Your task to perform on an android device: turn off wifi Image 0: 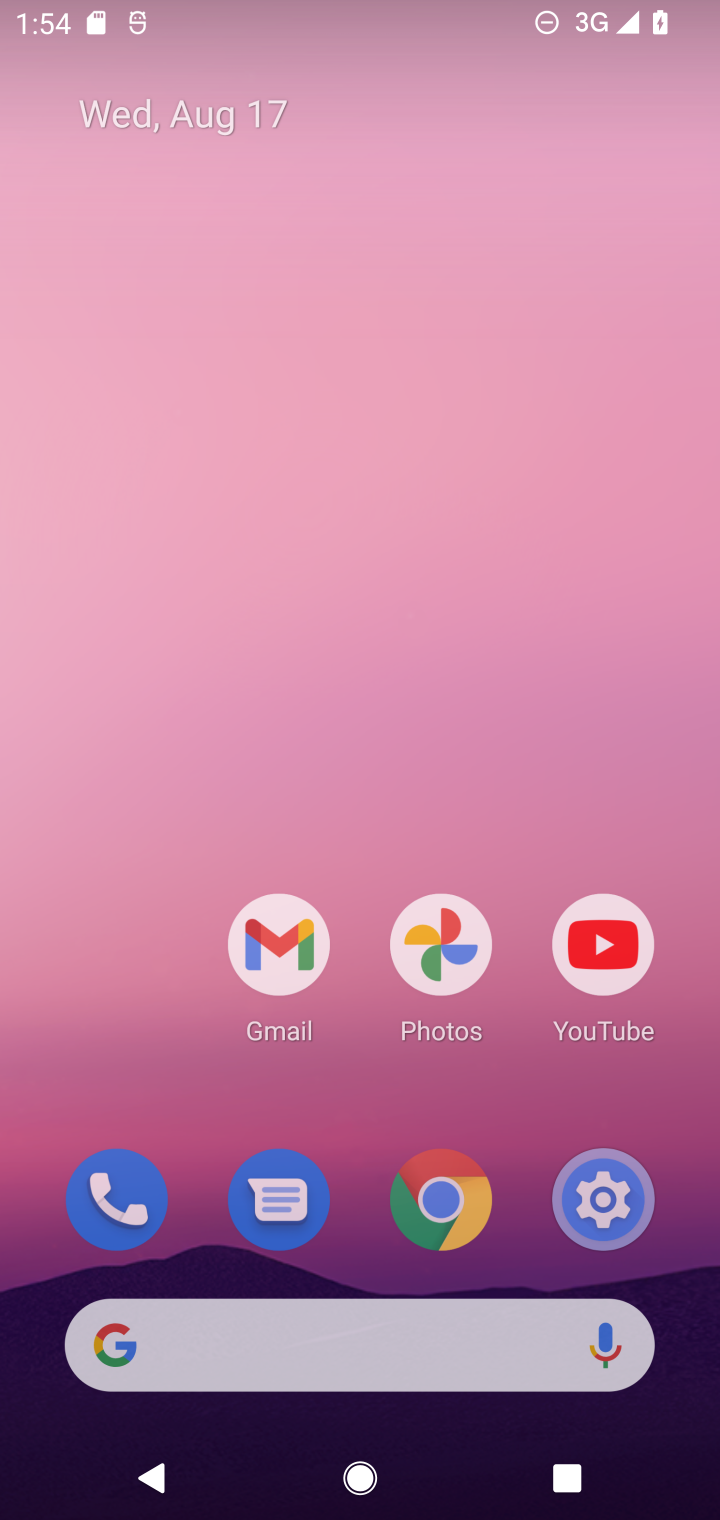
Step 0: press home button
Your task to perform on an android device: turn off wifi Image 1: 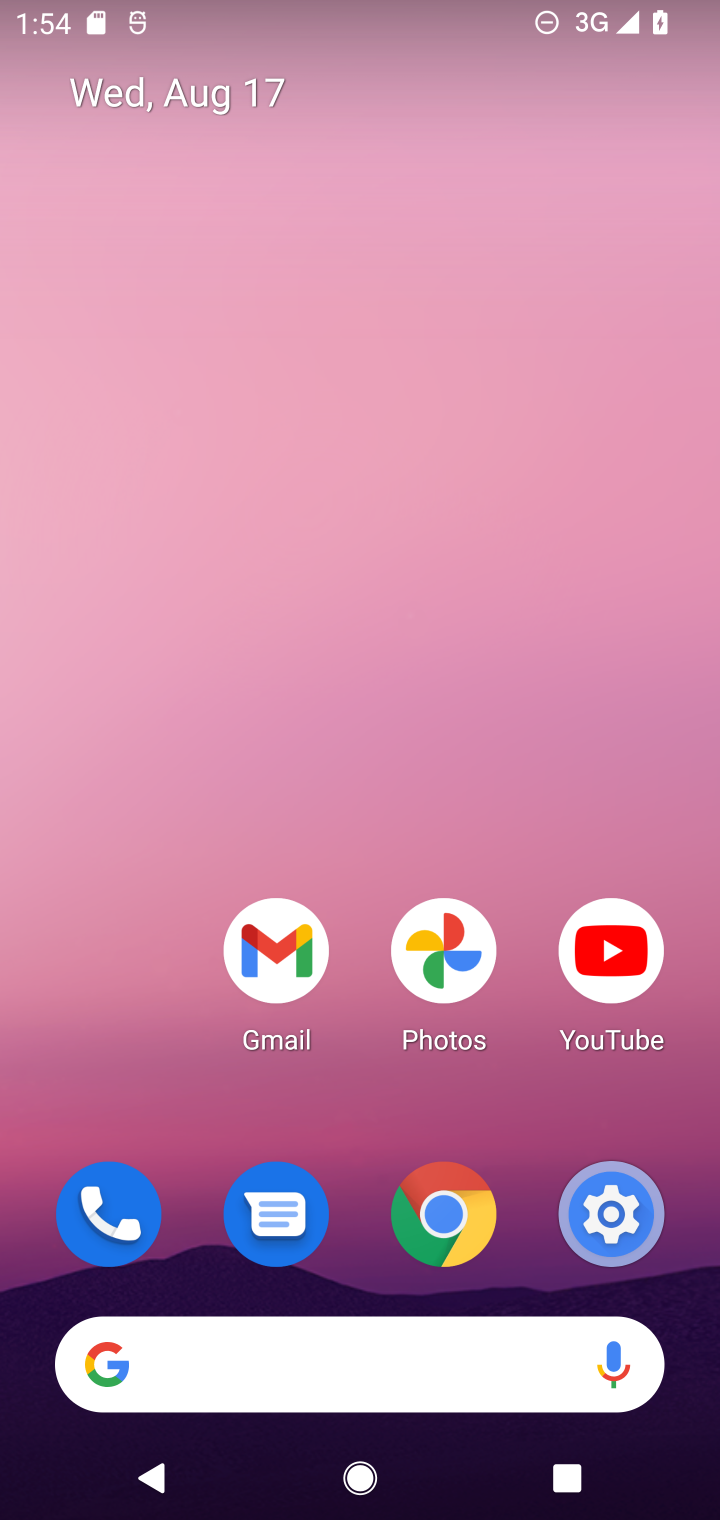
Step 1: click (615, 1213)
Your task to perform on an android device: turn off wifi Image 2: 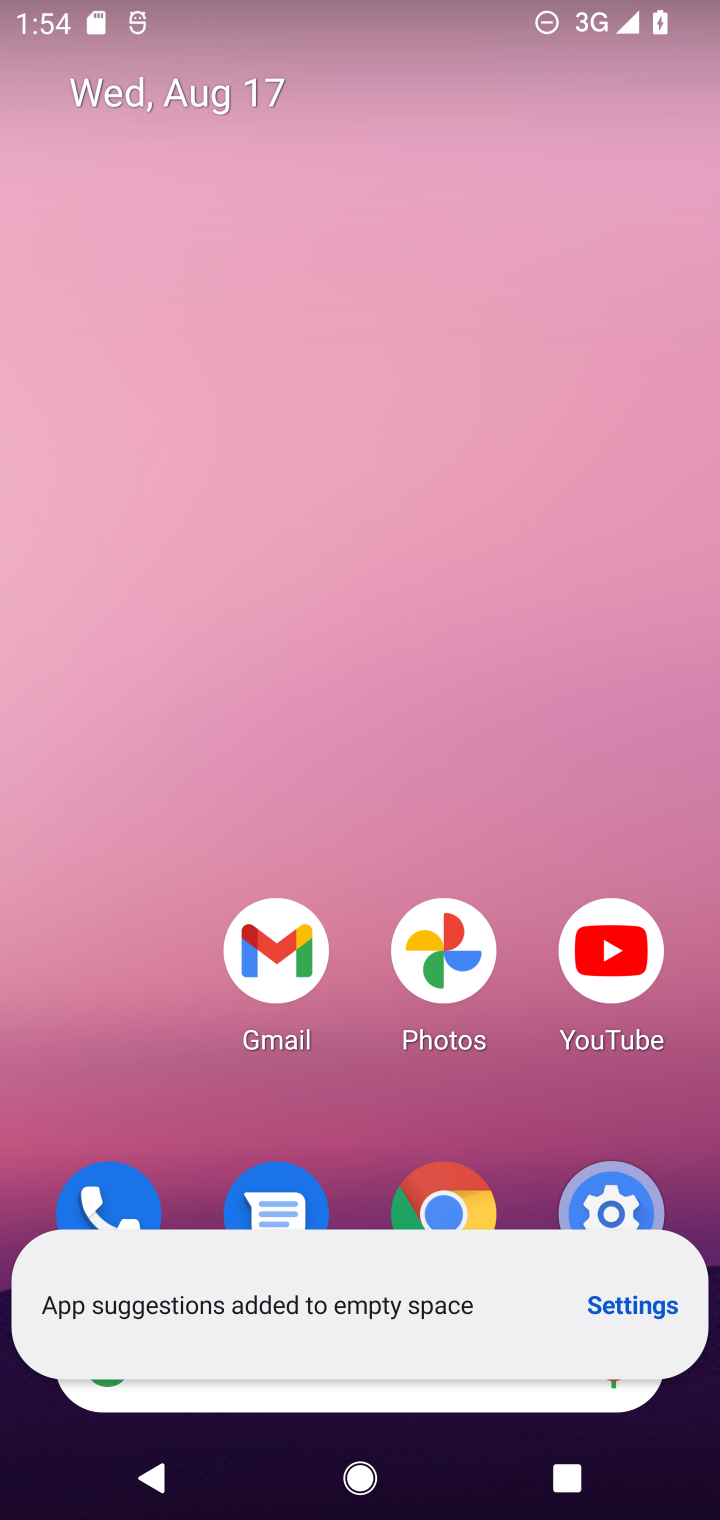
Step 2: click (615, 1213)
Your task to perform on an android device: turn off wifi Image 3: 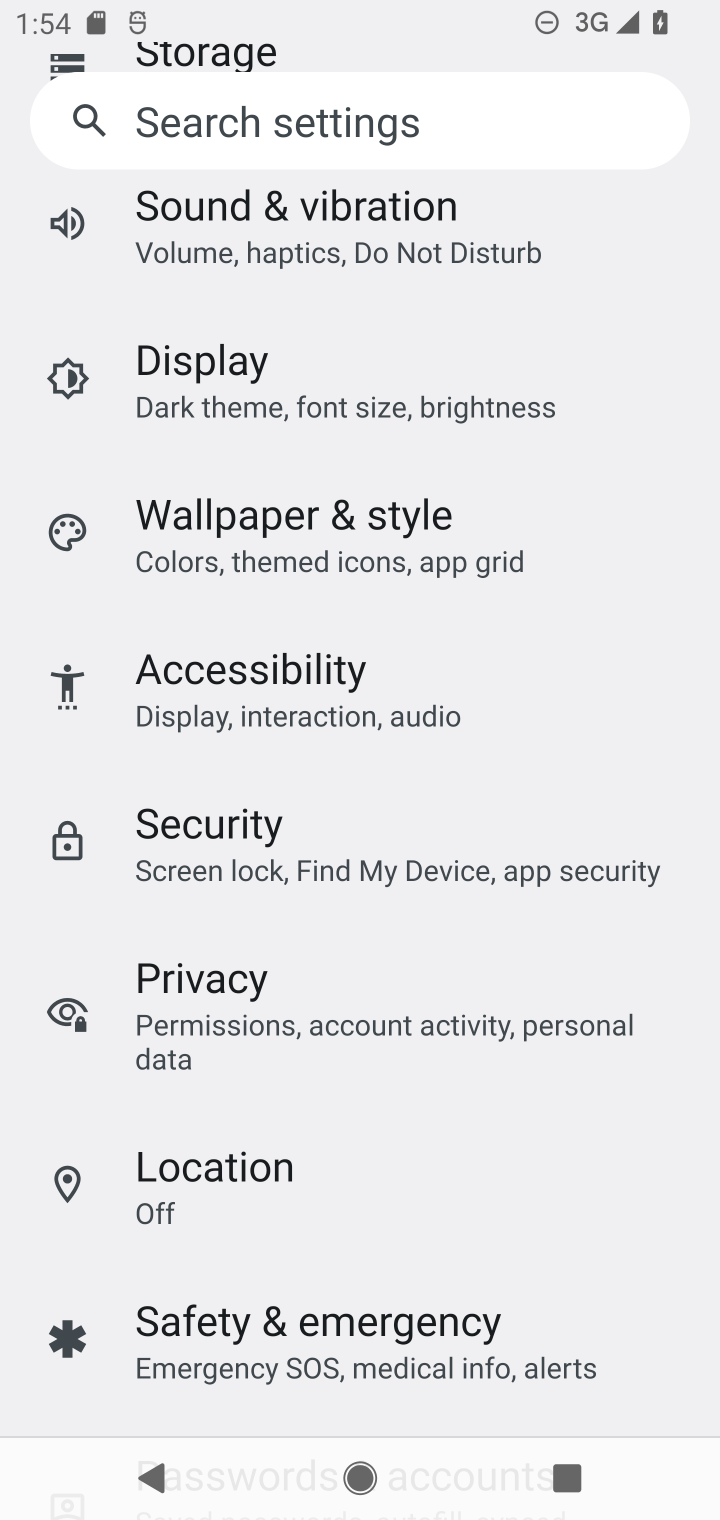
Step 3: drag from (371, 319) to (371, 916)
Your task to perform on an android device: turn off wifi Image 4: 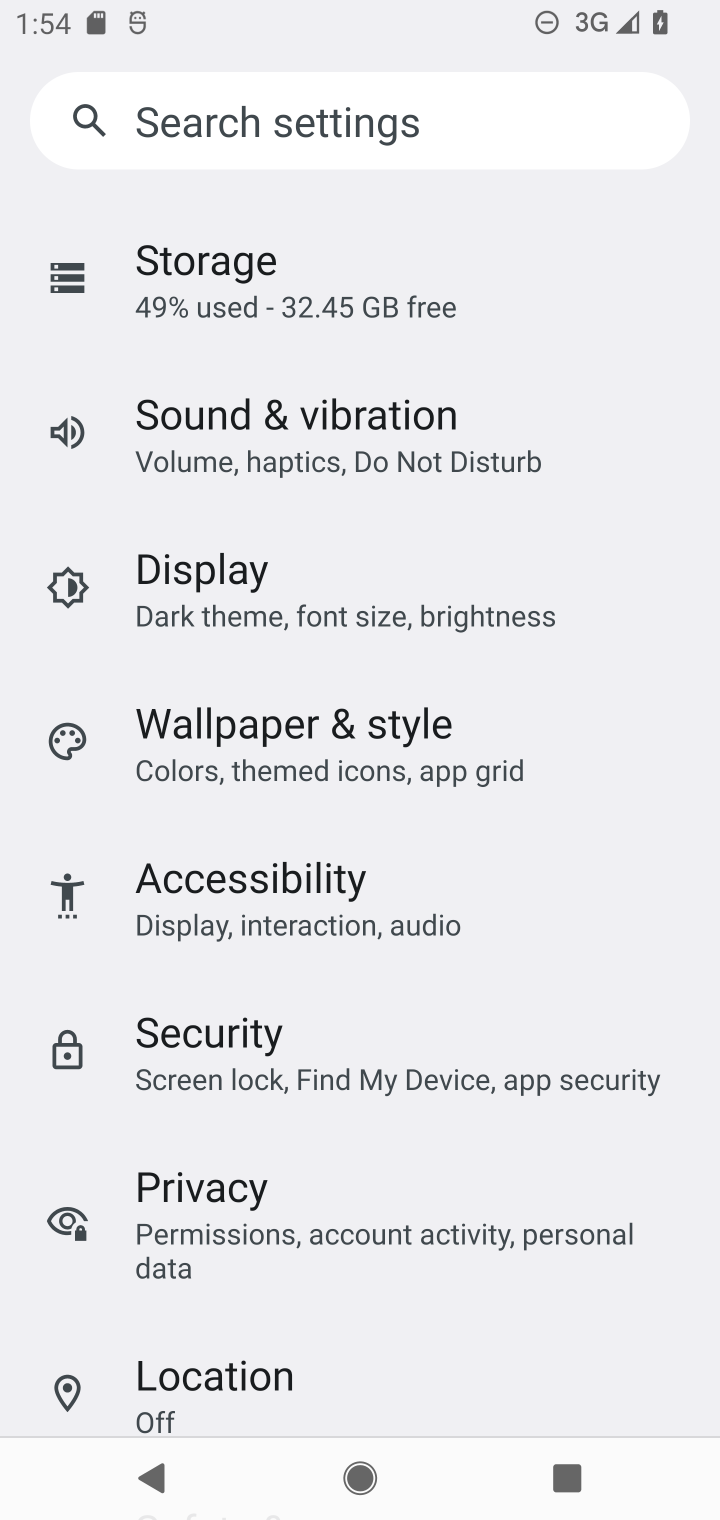
Step 4: drag from (381, 524) to (323, 1130)
Your task to perform on an android device: turn off wifi Image 5: 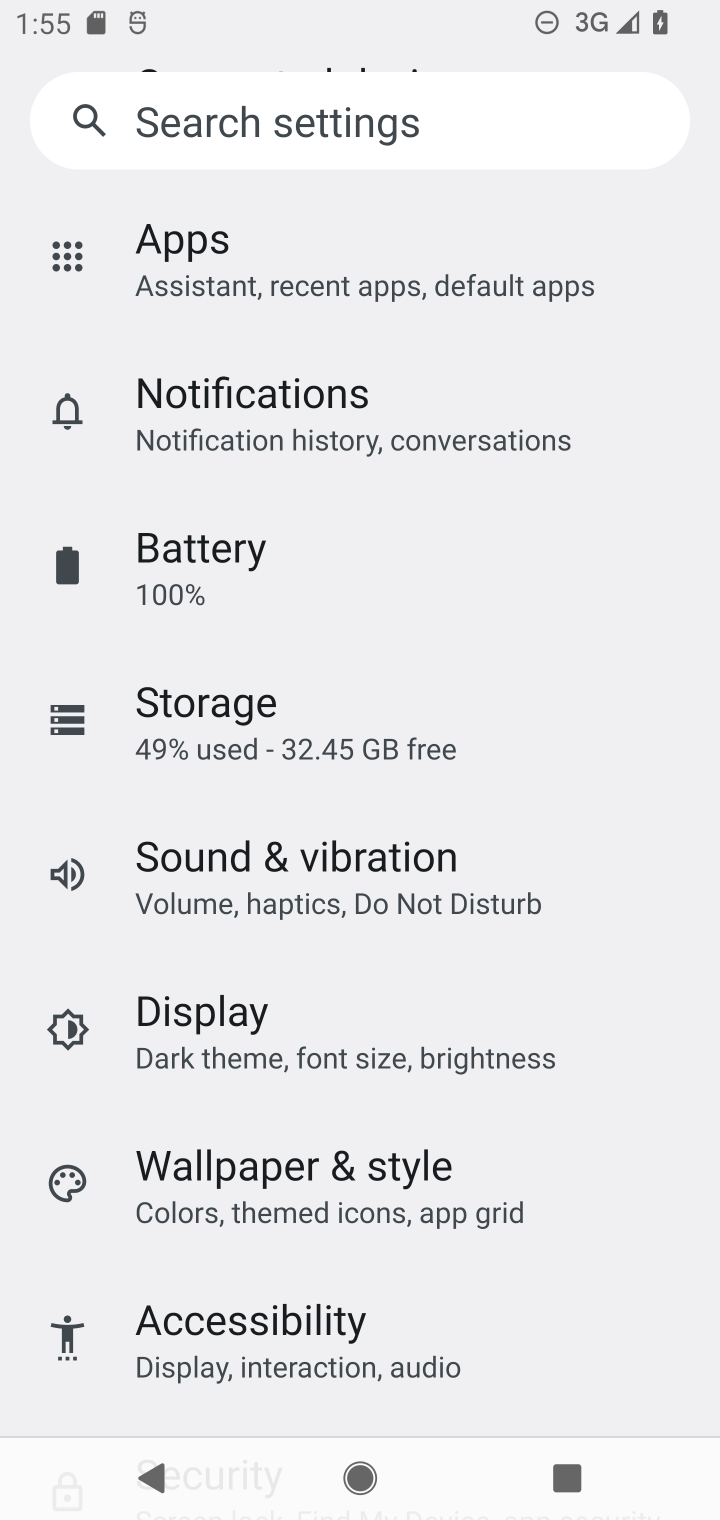
Step 5: drag from (400, 483) to (318, 944)
Your task to perform on an android device: turn off wifi Image 6: 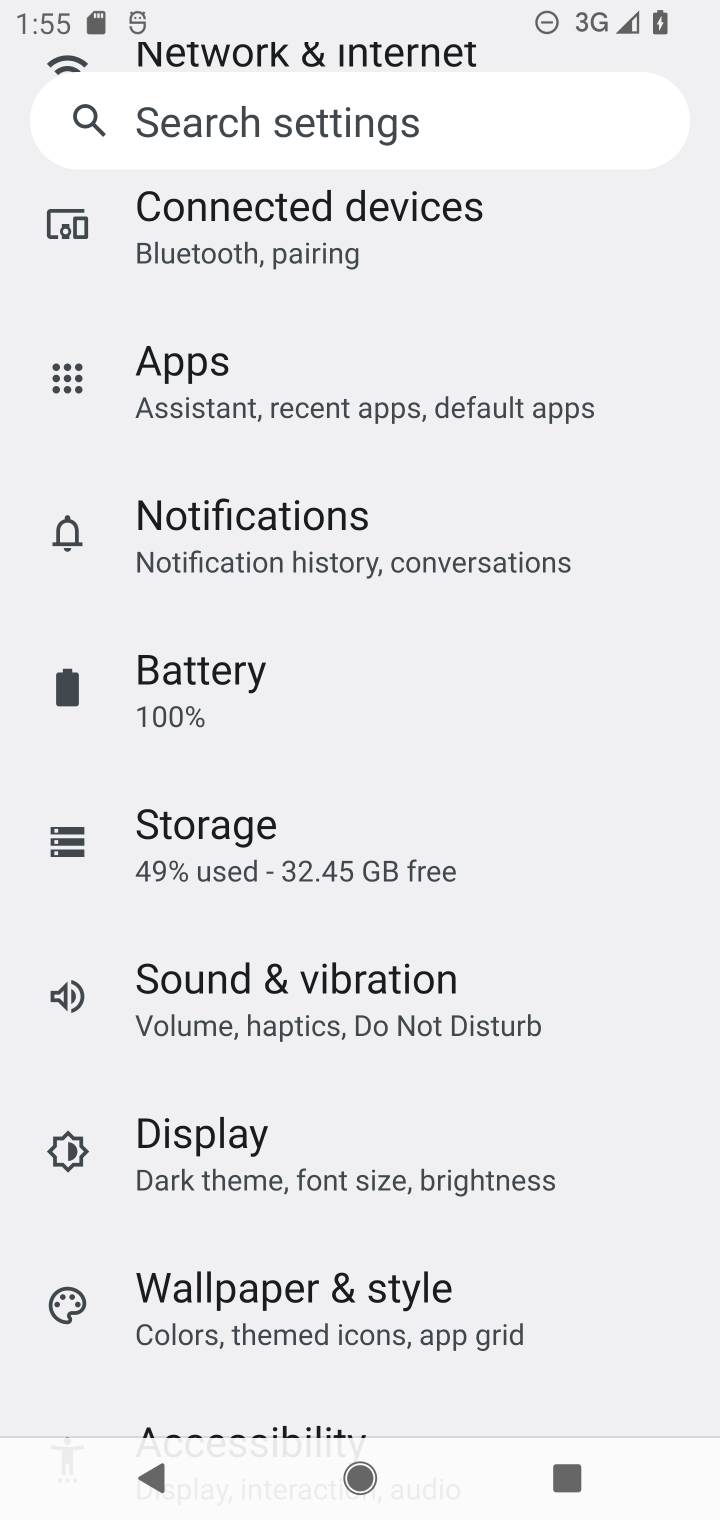
Step 6: drag from (394, 332) to (336, 1175)
Your task to perform on an android device: turn off wifi Image 7: 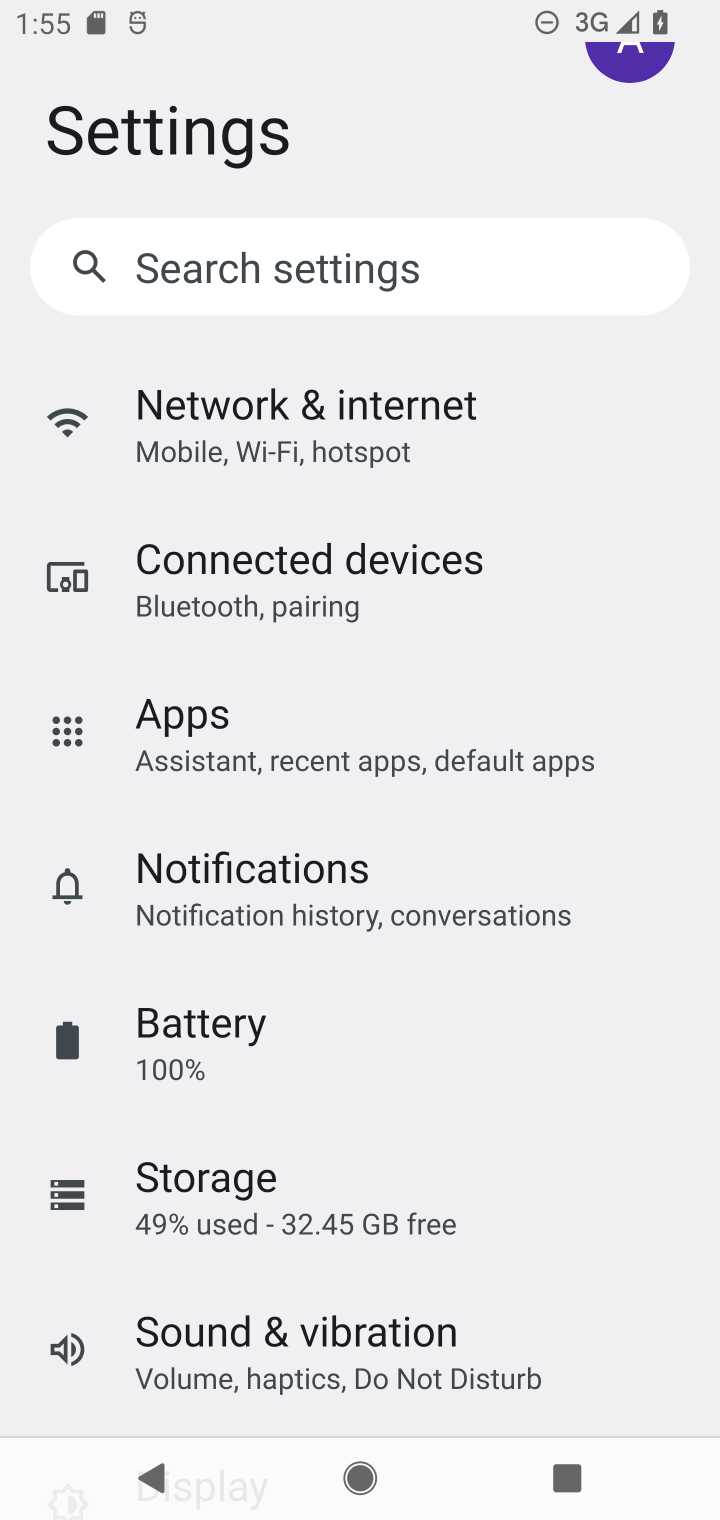
Step 7: click (293, 393)
Your task to perform on an android device: turn off wifi Image 8: 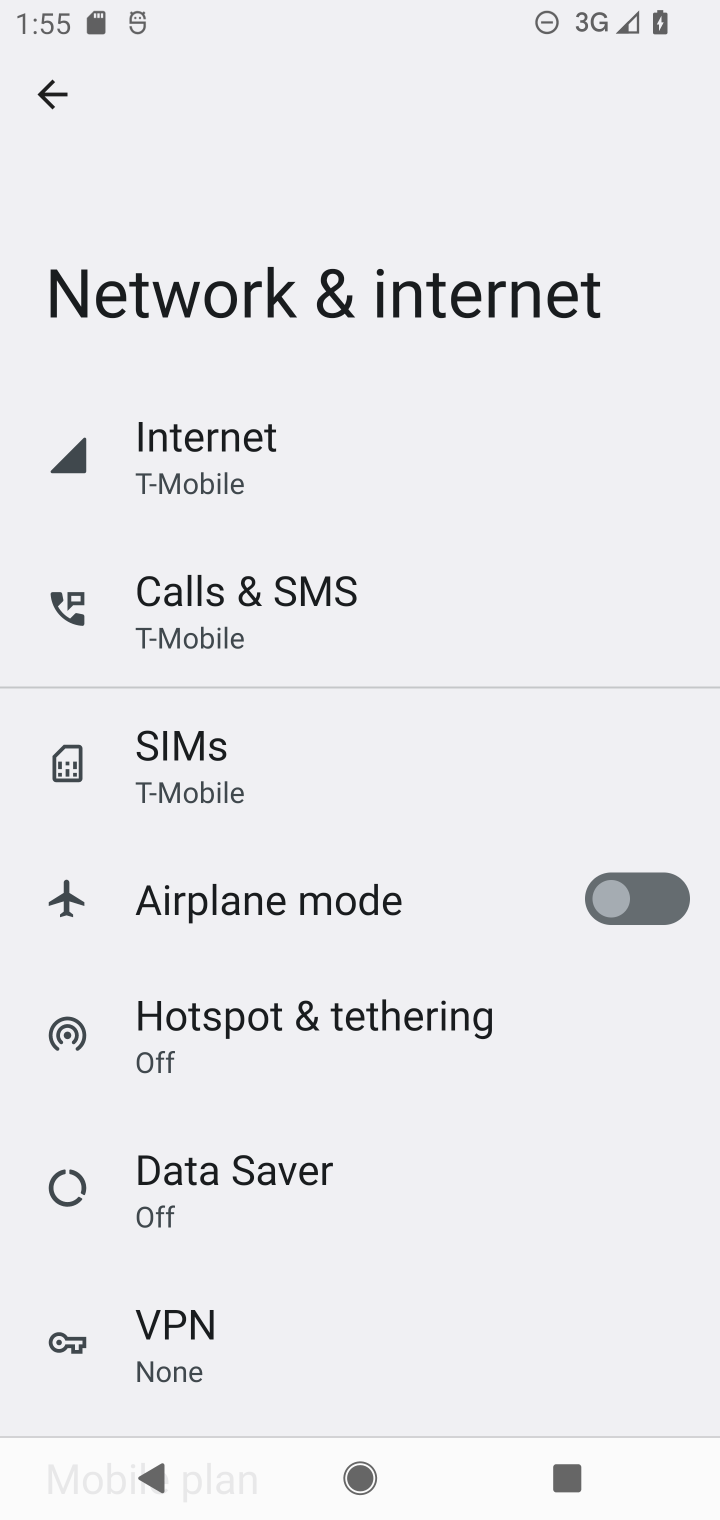
Step 8: click (196, 417)
Your task to perform on an android device: turn off wifi Image 9: 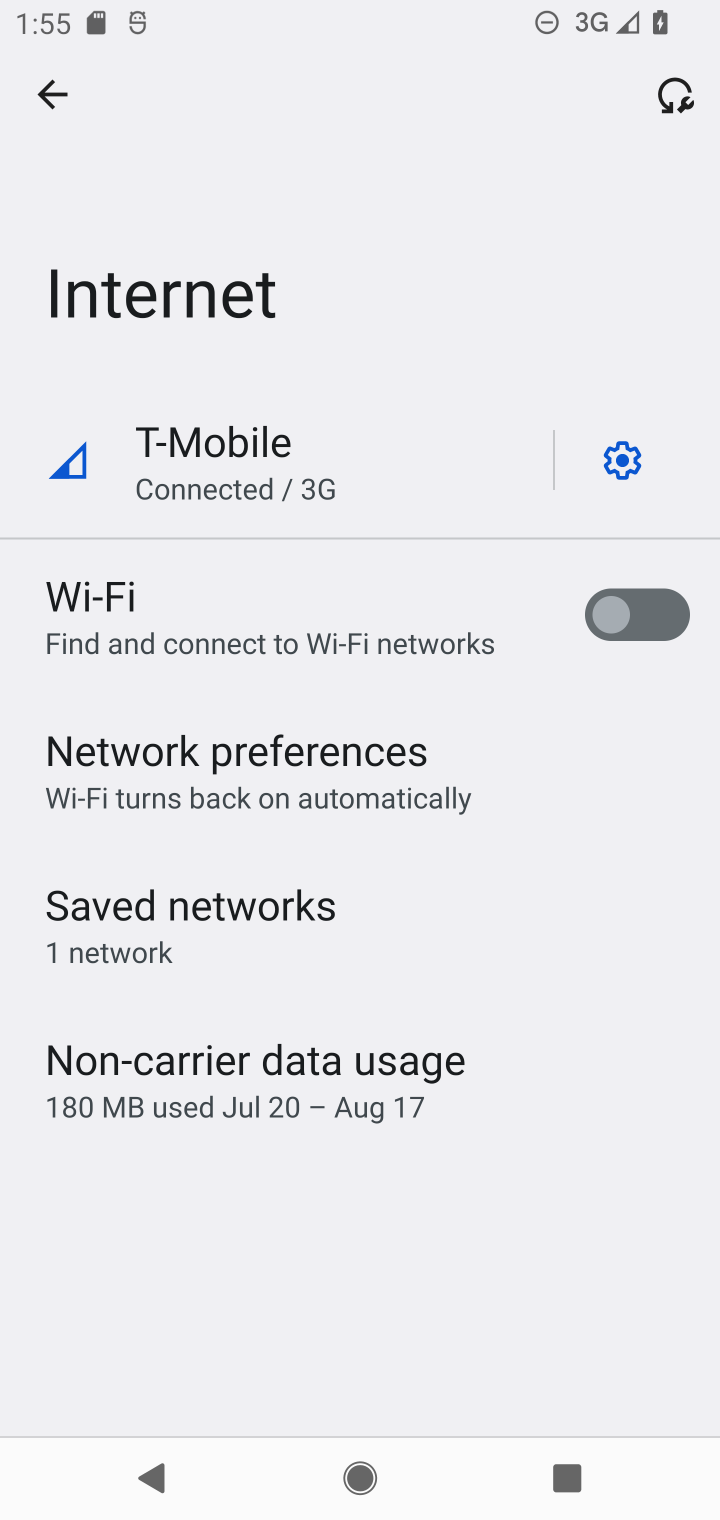
Step 9: task complete